Your task to perform on an android device: create a new album in the google photos Image 0: 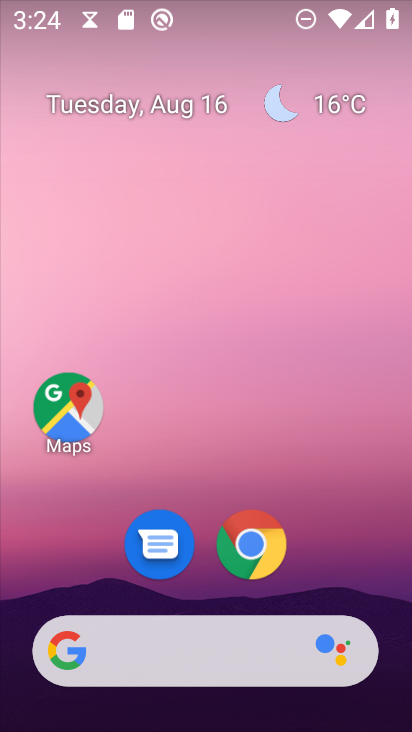
Step 0: drag from (283, 609) to (235, 104)
Your task to perform on an android device: create a new album in the google photos Image 1: 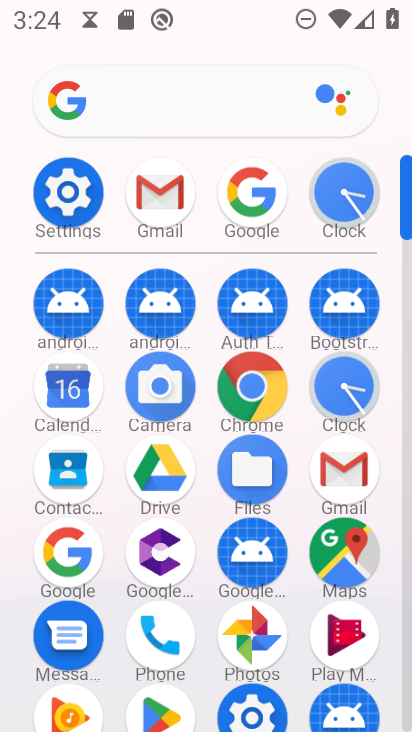
Step 1: click (251, 634)
Your task to perform on an android device: create a new album in the google photos Image 2: 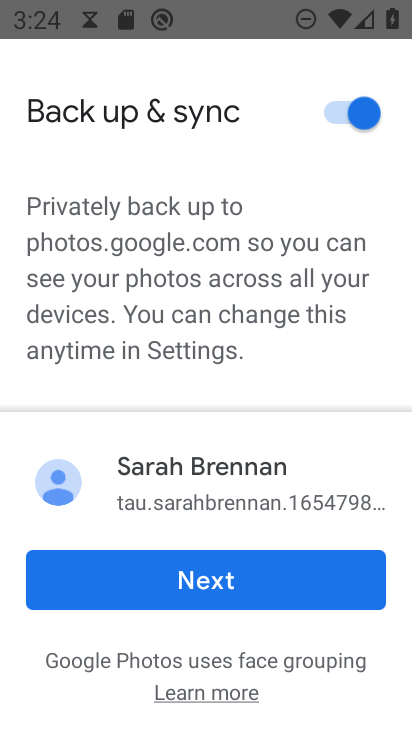
Step 2: click (225, 582)
Your task to perform on an android device: create a new album in the google photos Image 3: 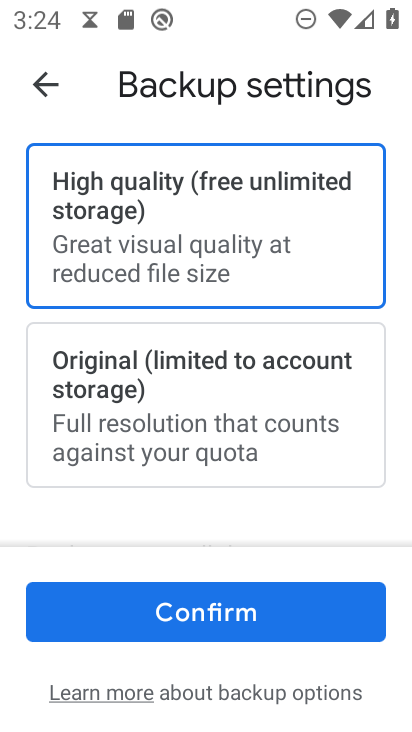
Step 3: click (207, 620)
Your task to perform on an android device: create a new album in the google photos Image 4: 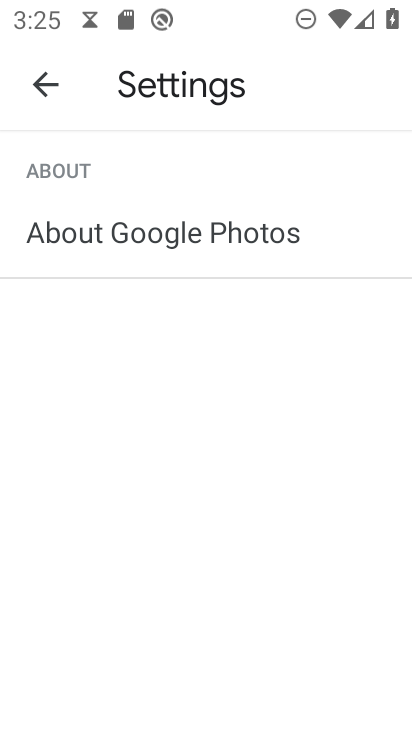
Step 4: press back button
Your task to perform on an android device: create a new album in the google photos Image 5: 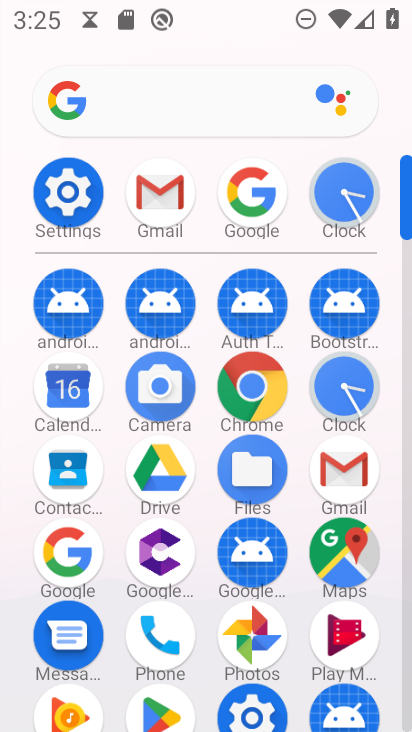
Step 5: click (252, 634)
Your task to perform on an android device: create a new album in the google photos Image 6: 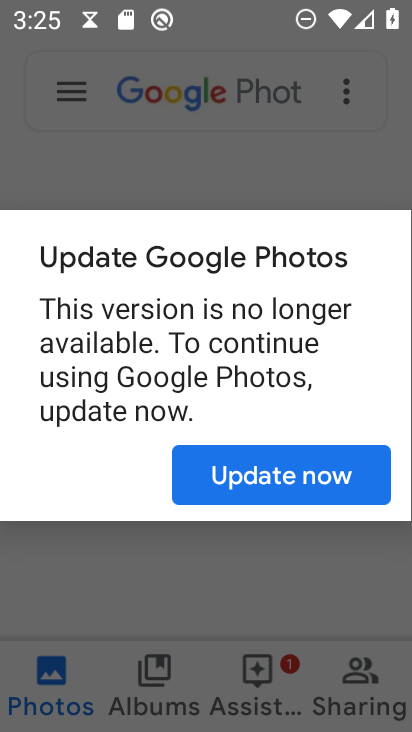
Step 6: click (296, 475)
Your task to perform on an android device: create a new album in the google photos Image 7: 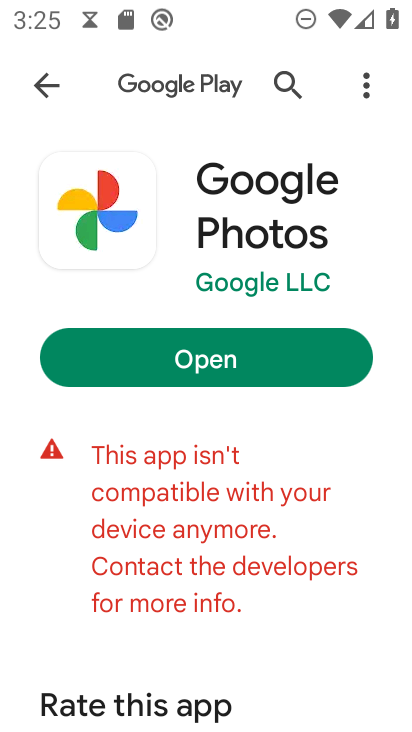
Step 7: press back button
Your task to perform on an android device: create a new album in the google photos Image 8: 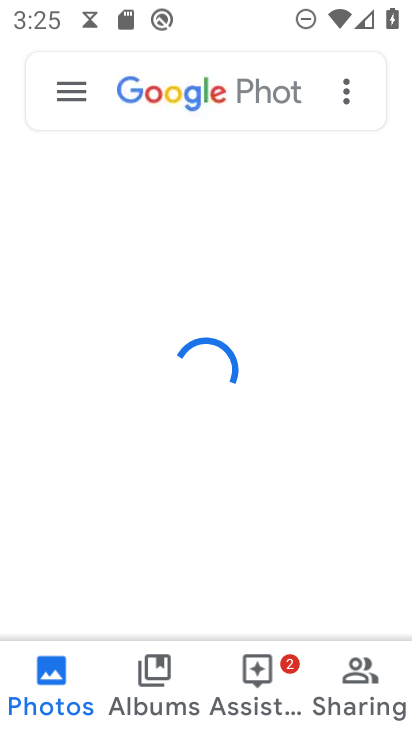
Step 8: click (152, 673)
Your task to perform on an android device: create a new album in the google photos Image 9: 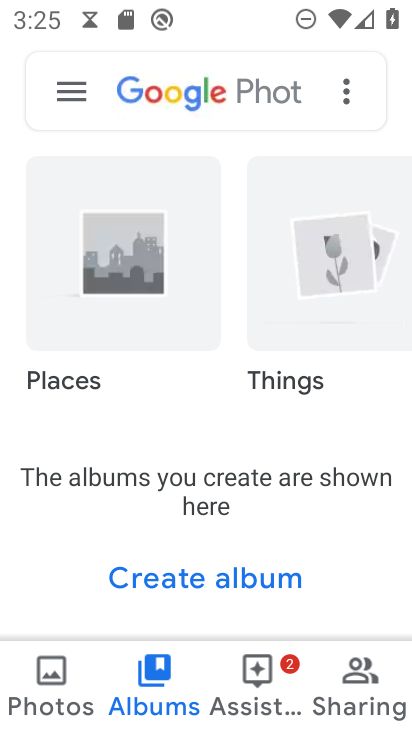
Step 9: click (230, 575)
Your task to perform on an android device: create a new album in the google photos Image 10: 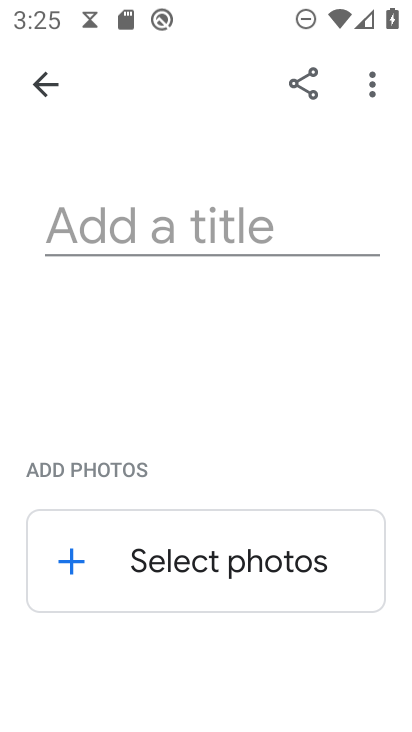
Step 10: click (191, 219)
Your task to perform on an android device: create a new album in the google photos Image 11: 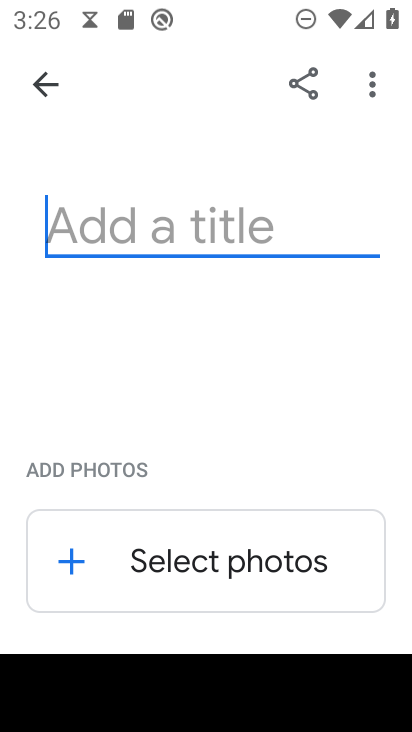
Step 11: type "Food"
Your task to perform on an android device: create a new album in the google photos Image 12: 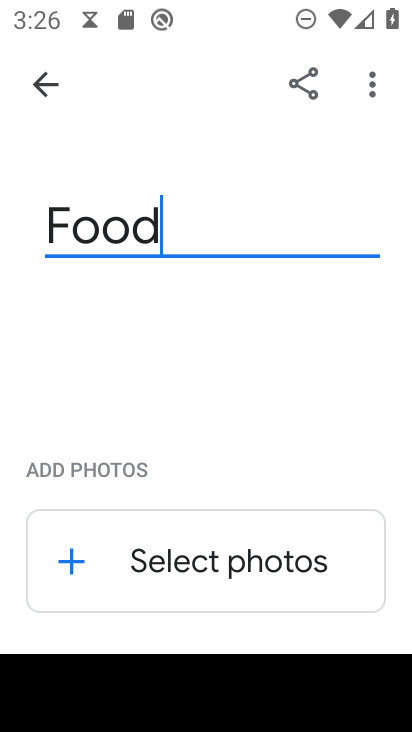
Step 12: click (72, 557)
Your task to perform on an android device: create a new album in the google photos Image 13: 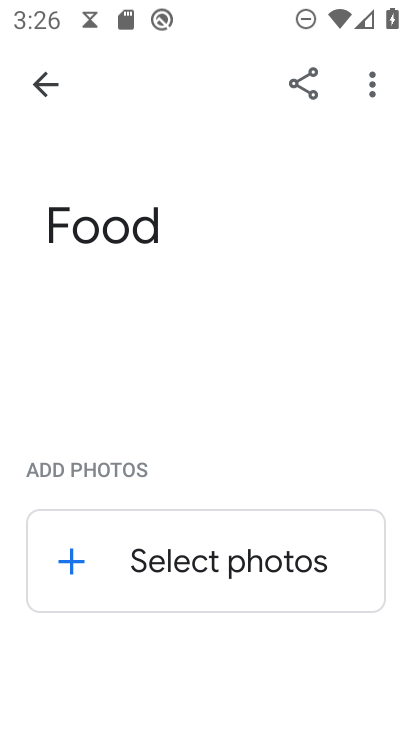
Step 13: click (72, 557)
Your task to perform on an android device: create a new album in the google photos Image 14: 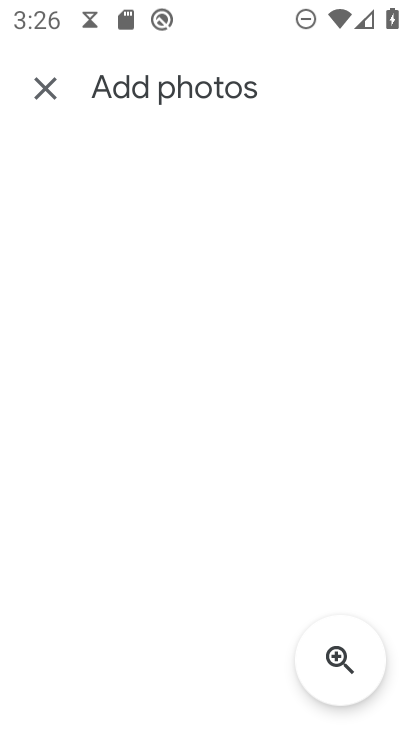
Step 14: task complete